Your task to perform on an android device: see sites visited before in the chrome app Image 0: 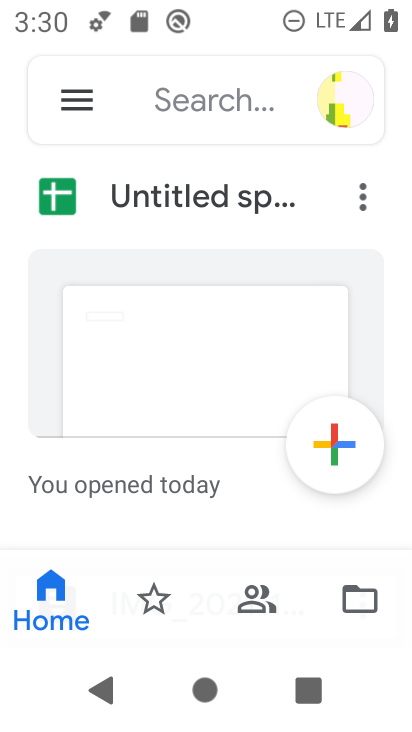
Step 0: press home button
Your task to perform on an android device: see sites visited before in the chrome app Image 1: 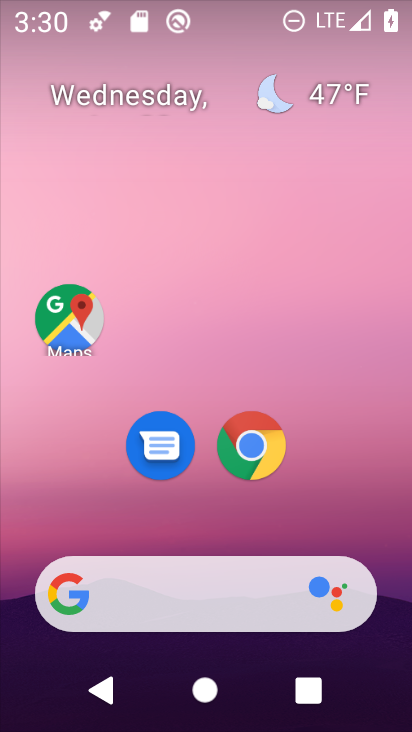
Step 1: click (251, 442)
Your task to perform on an android device: see sites visited before in the chrome app Image 2: 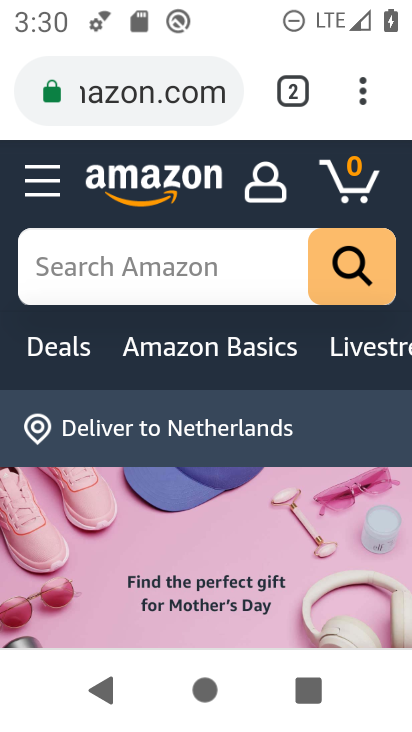
Step 2: click (362, 93)
Your task to perform on an android device: see sites visited before in the chrome app Image 3: 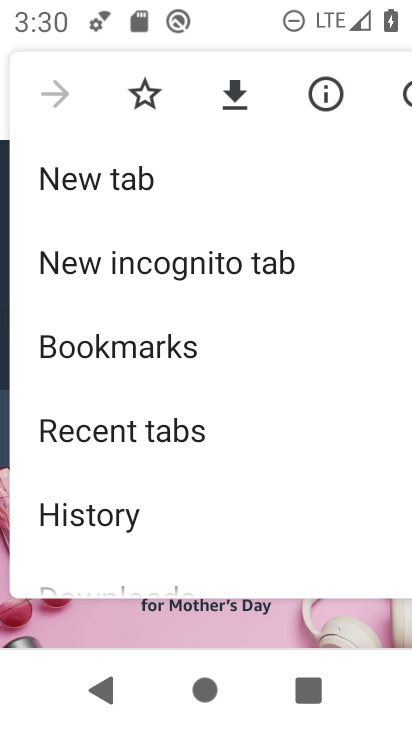
Step 3: click (115, 519)
Your task to perform on an android device: see sites visited before in the chrome app Image 4: 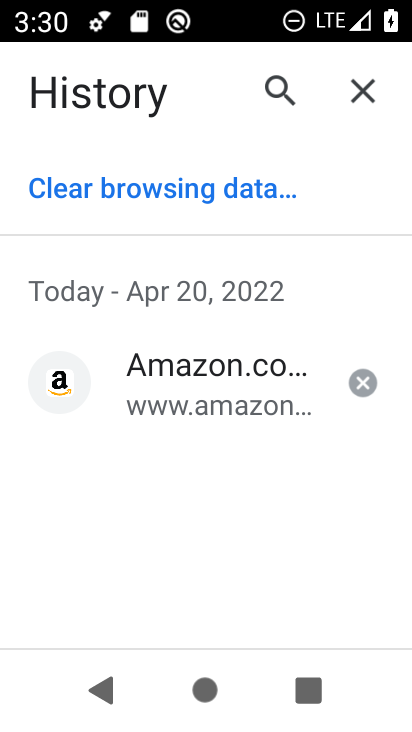
Step 4: task complete